Your task to perform on an android device: Add "razer huntsman" to the cart on bestbuy.com Image 0: 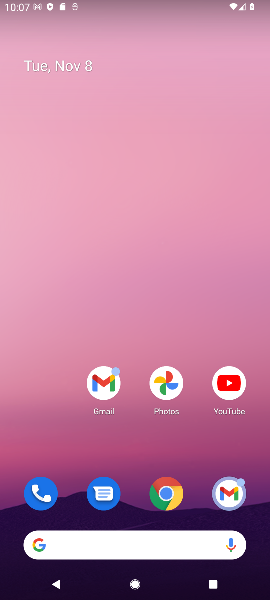
Step 0: click (169, 500)
Your task to perform on an android device: Add "razer huntsman" to the cart on bestbuy.com Image 1: 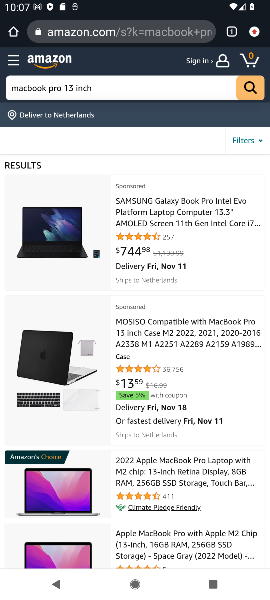
Step 1: click (125, 38)
Your task to perform on an android device: Add "razer huntsman" to the cart on bestbuy.com Image 2: 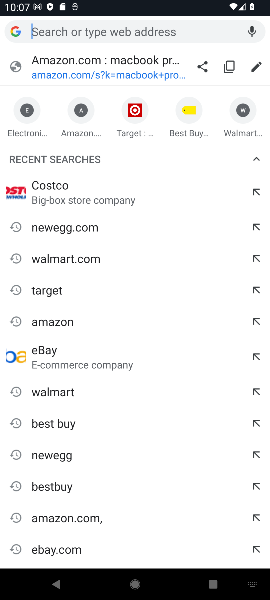
Step 2: click (188, 134)
Your task to perform on an android device: Add "razer huntsman" to the cart on bestbuy.com Image 3: 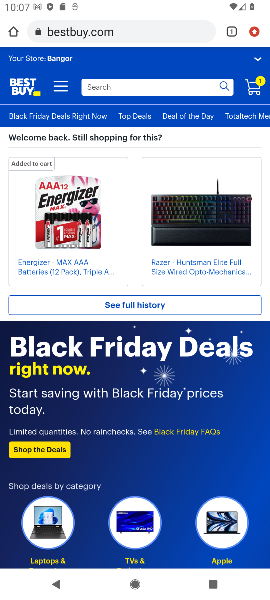
Step 3: click (115, 86)
Your task to perform on an android device: Add "razer huntsman" to the cart on bestbuy.com Image 4: 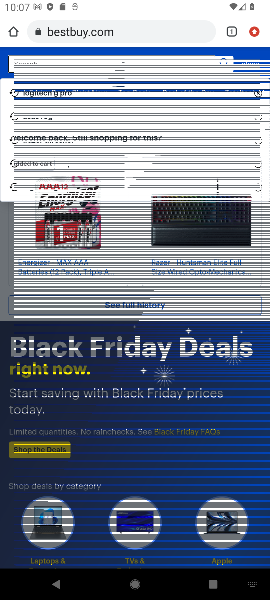
Step 4: type "razer huntsman"
Your task to perform on an android device: Add "razer huntsman" to the cart on bestbuy.com Image 5: 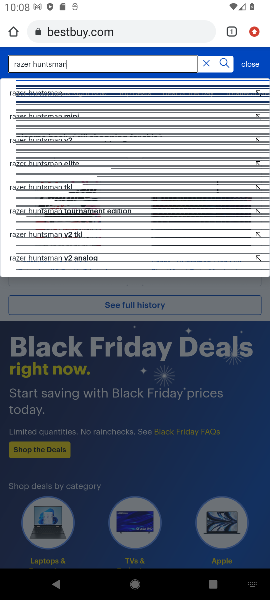
Step 5: click (47, 95)
Your task to perform on an android device: Add "razer huntsman" to the cart on bestbuy.com Image 6: 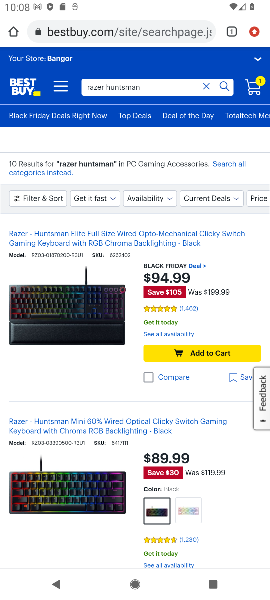
Step 6: click (64, 306)
Your task to perform on an android device: Add "razer huntsman" to the cart on bestbuy.com Image 7: 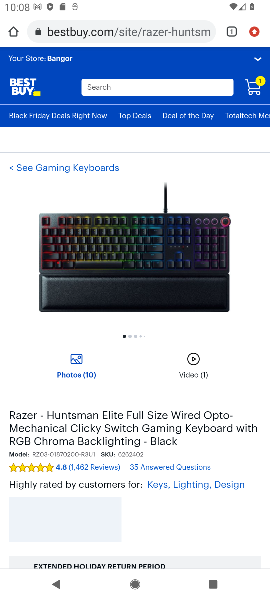
Step 7: drag from (109, 411) to (112, 146)
Your task to perform on an android device: Add "razer huntsman" to the cart on bestbuy.com Image 8: 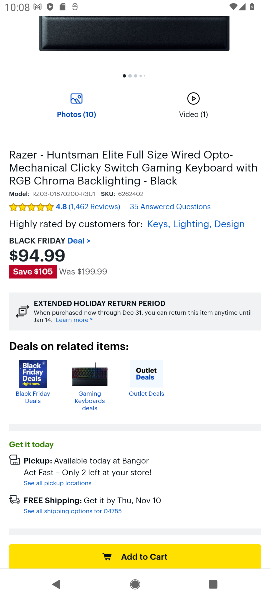
Step 8: drag from (113, 408) to (118, 240)
Your task to perform on an android device: Add "razer huntsman" to the cart on bestbuy.com Image 9: 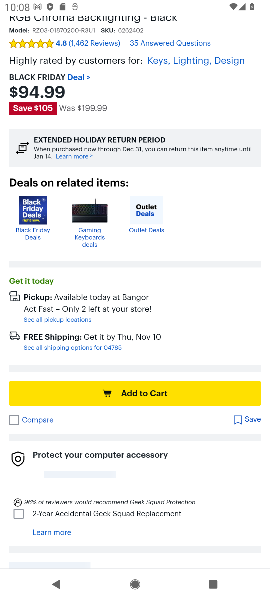
Step 9: click (112, 391)
Your task to perform on an android device: Add "razer huntsman" to the cart on bestbuy.com Image 10: 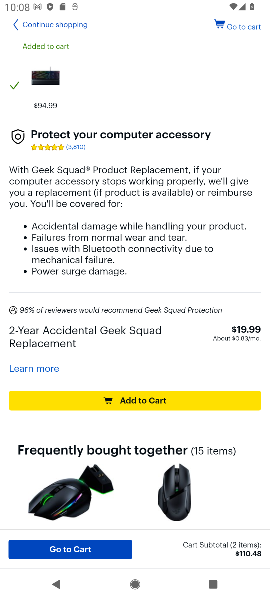
Step 10: task complete